Your task to perform on an android device: open app "Adobe Express: Graphic Design" (install if not already installed) and enter user name: "deliveries@gmail.com" and password: "regimentation" Image 0: 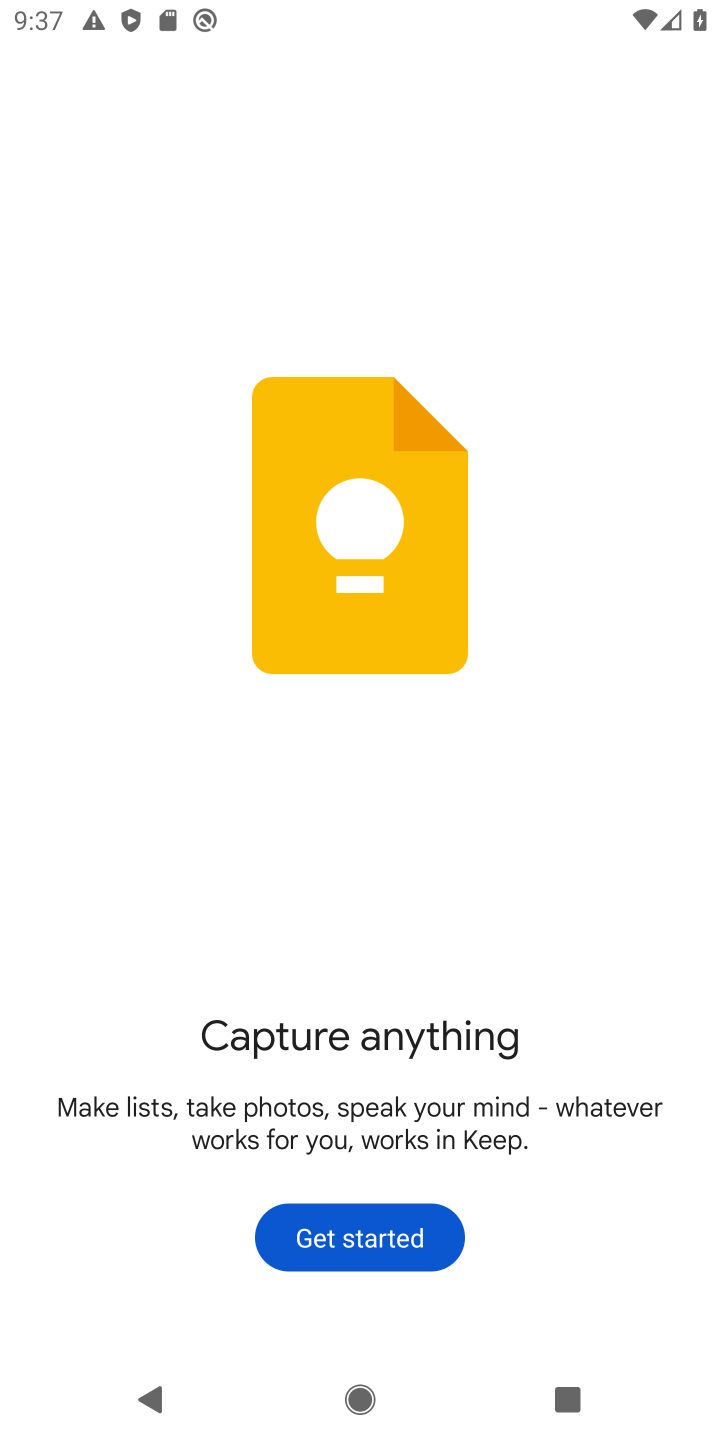
Step 0: press home button
Your task to perform on an android device: open app "Adobe Express: Graphic Design" (install if not already installed) and enter user name: "deliveries@gmail.com" and password: "regimentation" Image 1: 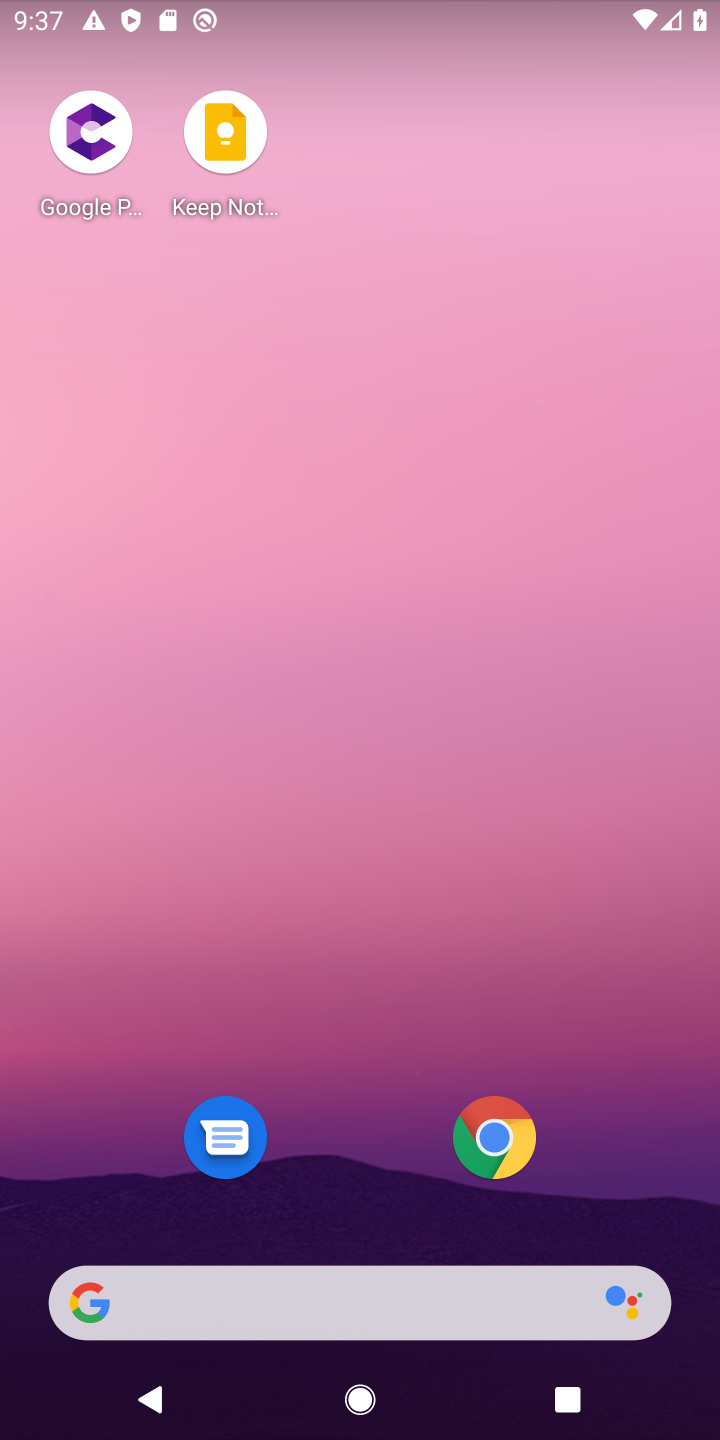
Step 1: drag from (315, 1213) to (394, 123)
Your task to perform on an android device: open app "Adobe Express: Graphic Design" (install if not already installed) and enter user name: "deliveries@gmail.com" and password: "regimentation" Image 2: 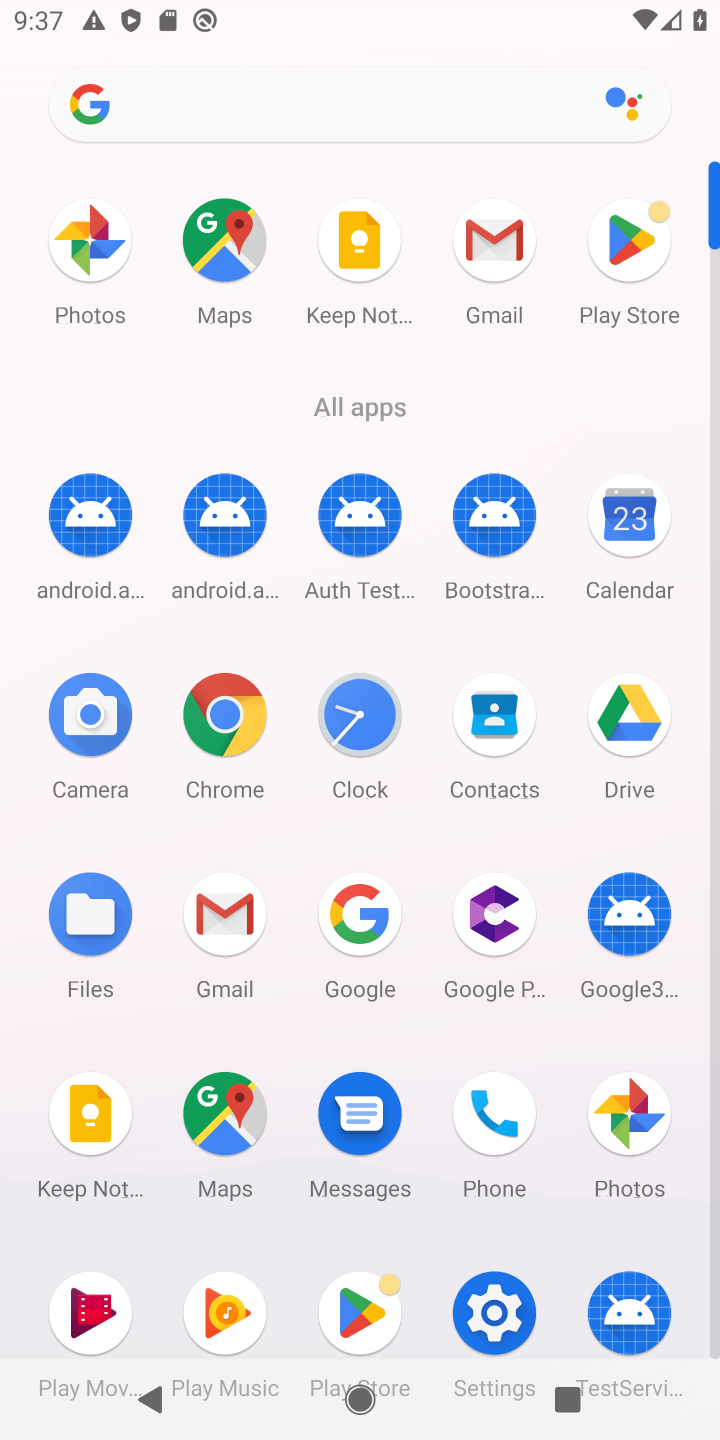
Step 2: click (361, 1290)
Your task to perform on an android device: open app "Adobe Express: Graphic Design" (install if not already installed) and enter user name: "deliveries@gmail.com" and password: "regimentation" Image 3: 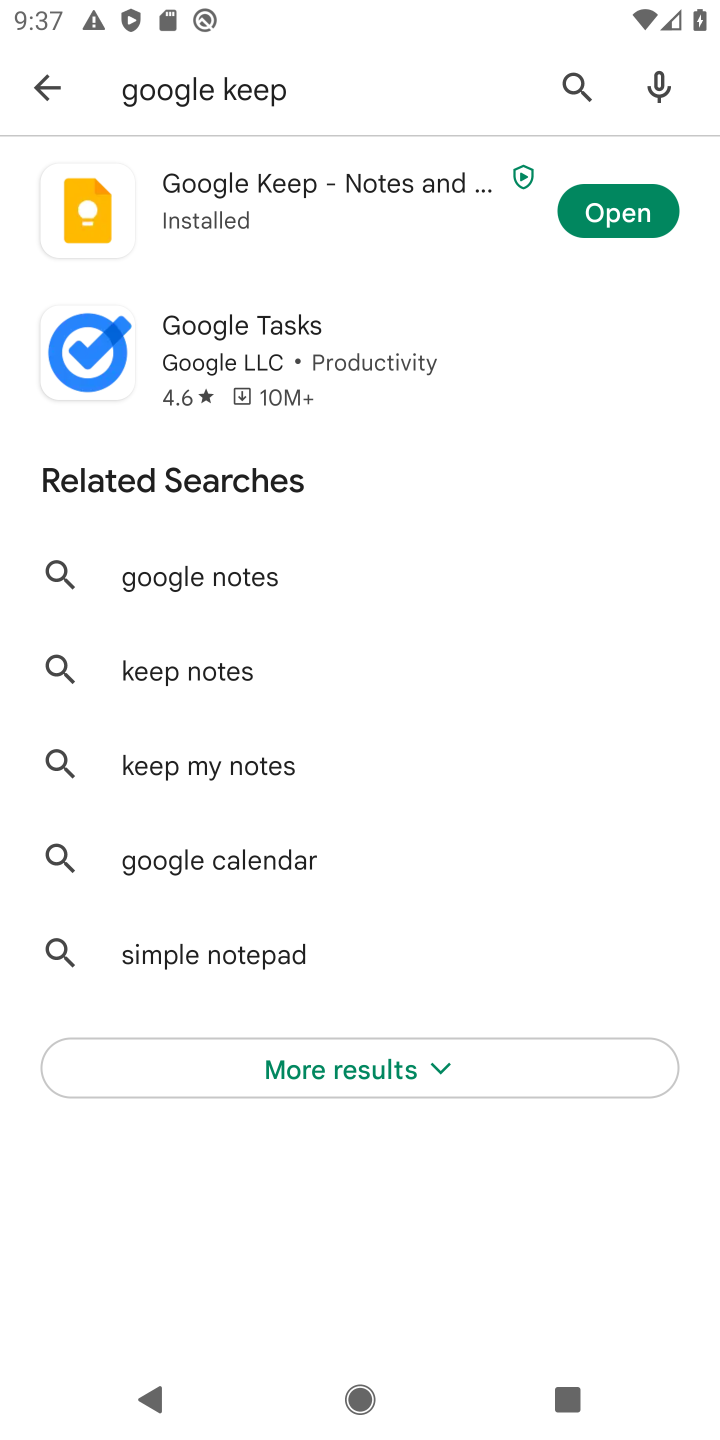
Step 3: click (39, 94)
Your task to perform on an android device: open app "Adobe Express: Graphic Design" (install if not already installed) and enter user name: "deliveries@gmail.com" and password: "regimentation" Image 4: 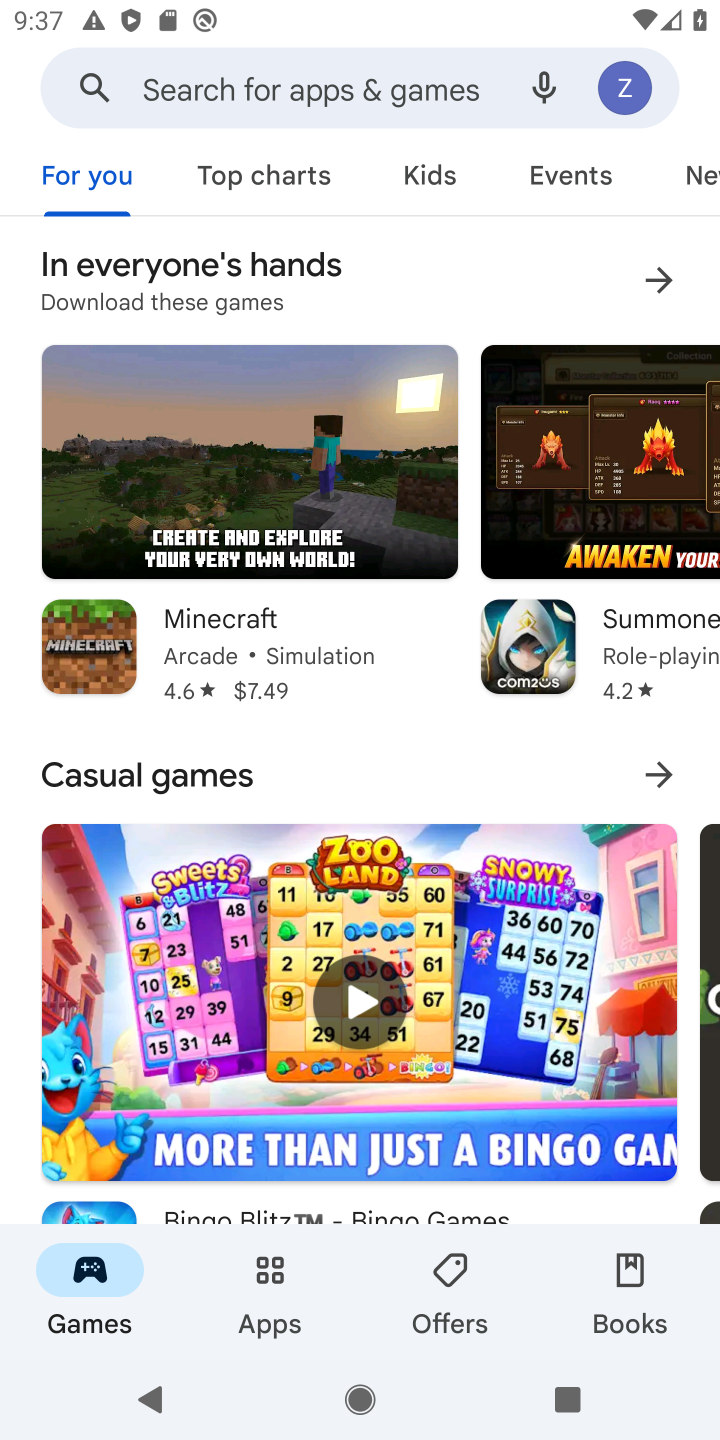
Step 4: click (170, 74)
Your task to perform on an android device: open app "Adobe Express: Graphic Design" (install if not already installed) and enter user name: "deliveries@gmail.com" and password: "regimentation" Image 5: 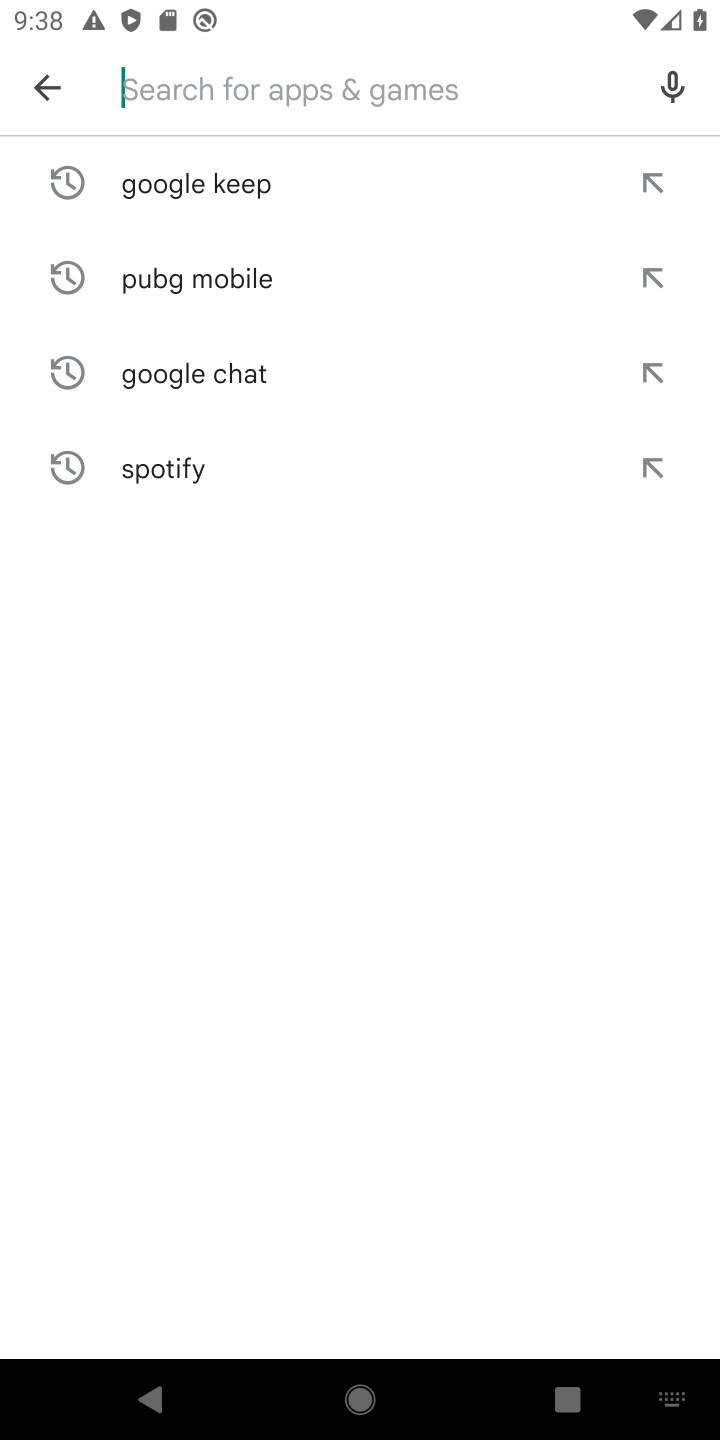
Step 5: type "Adobe Express: Graphic Design"
Your task to perform on an android device: open app "Adobe Express: Graphic Design" (install if not already installed) and enter user name: "deliveries@gmail.com" and password: "regimentation" Image 6: 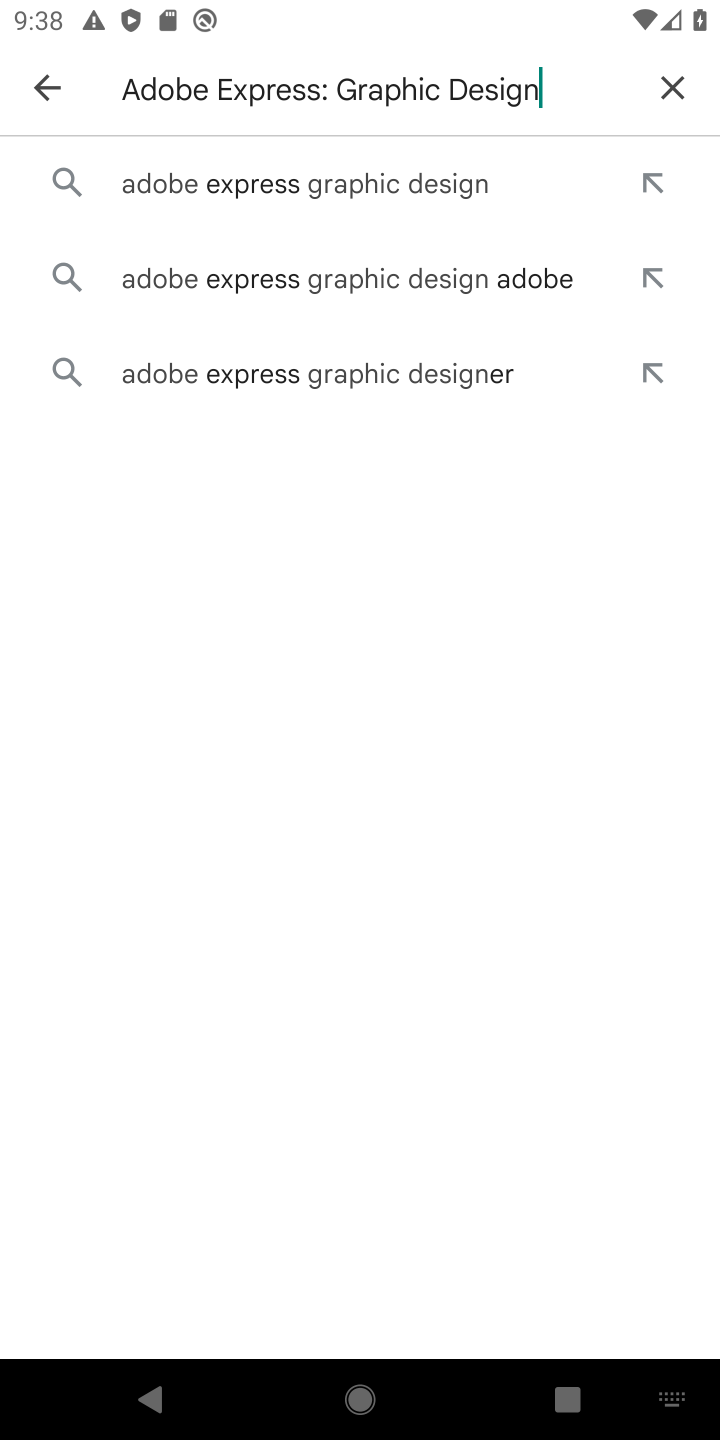
Step 6: click (217, 197)
Your task to perform on an android device: open app "Adobe Express: Graphic Design" (install if not already installed) and enter user name: "deliveries@gmail.com" and password: "regimentation" Image 7: 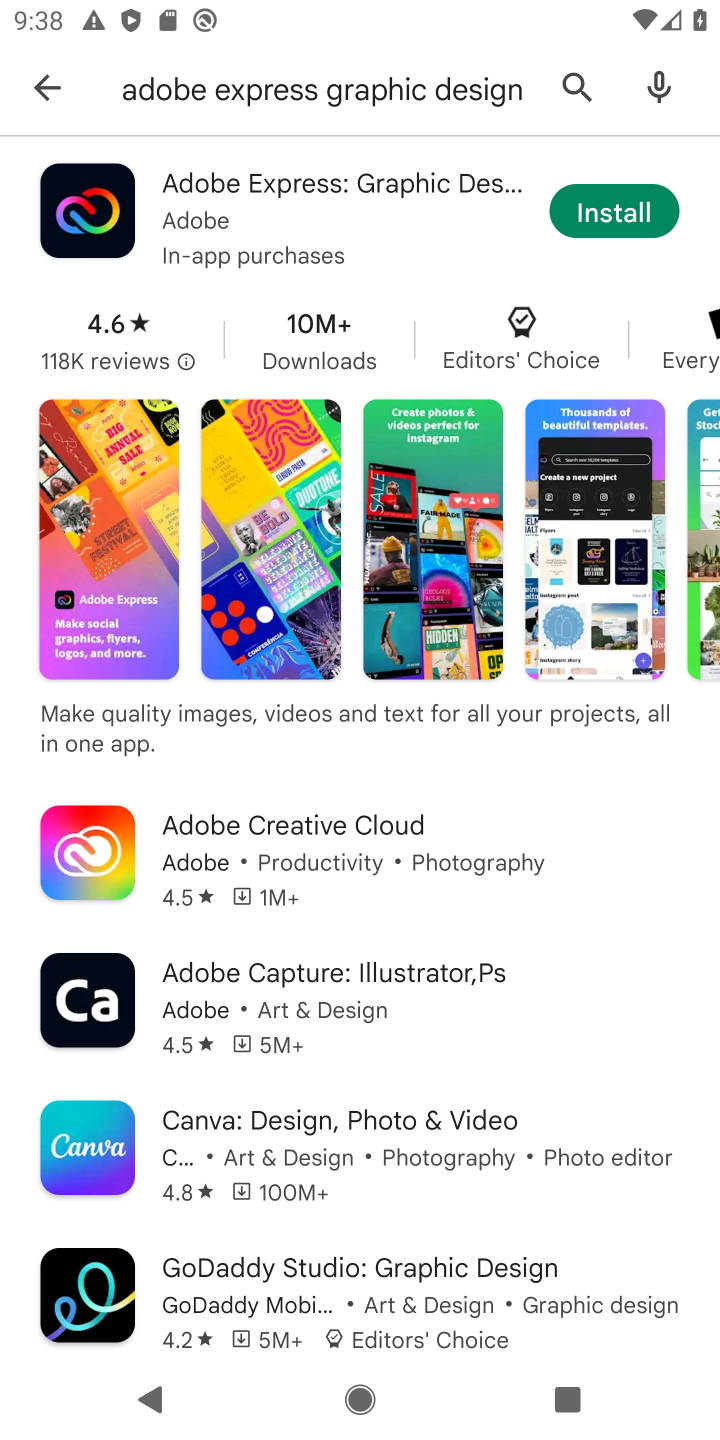
Step 7: click (578, 227)
Your task to perform on an android device: open app "Adobe Express: Graphic Design" (install if not already installed) and enter user name: "deliveries@gmail.com" and password: "regimentation" Image 8: 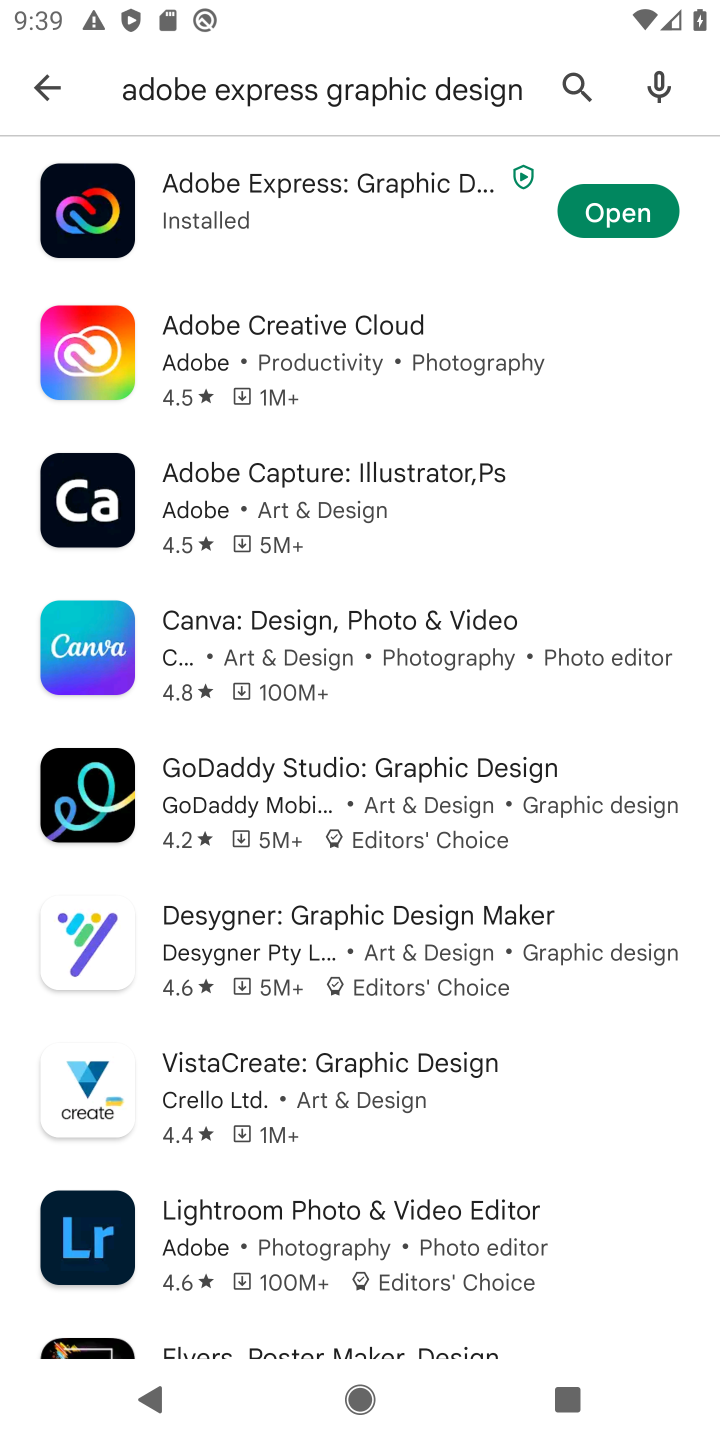
Step 8: click (636, 218)
Your task to perform on an android device: open app "Adobe Express: Graphic Design" (install if not already installed) and enter user name: "deliveries@gmail.com" and password: "regimentation" Image 9: 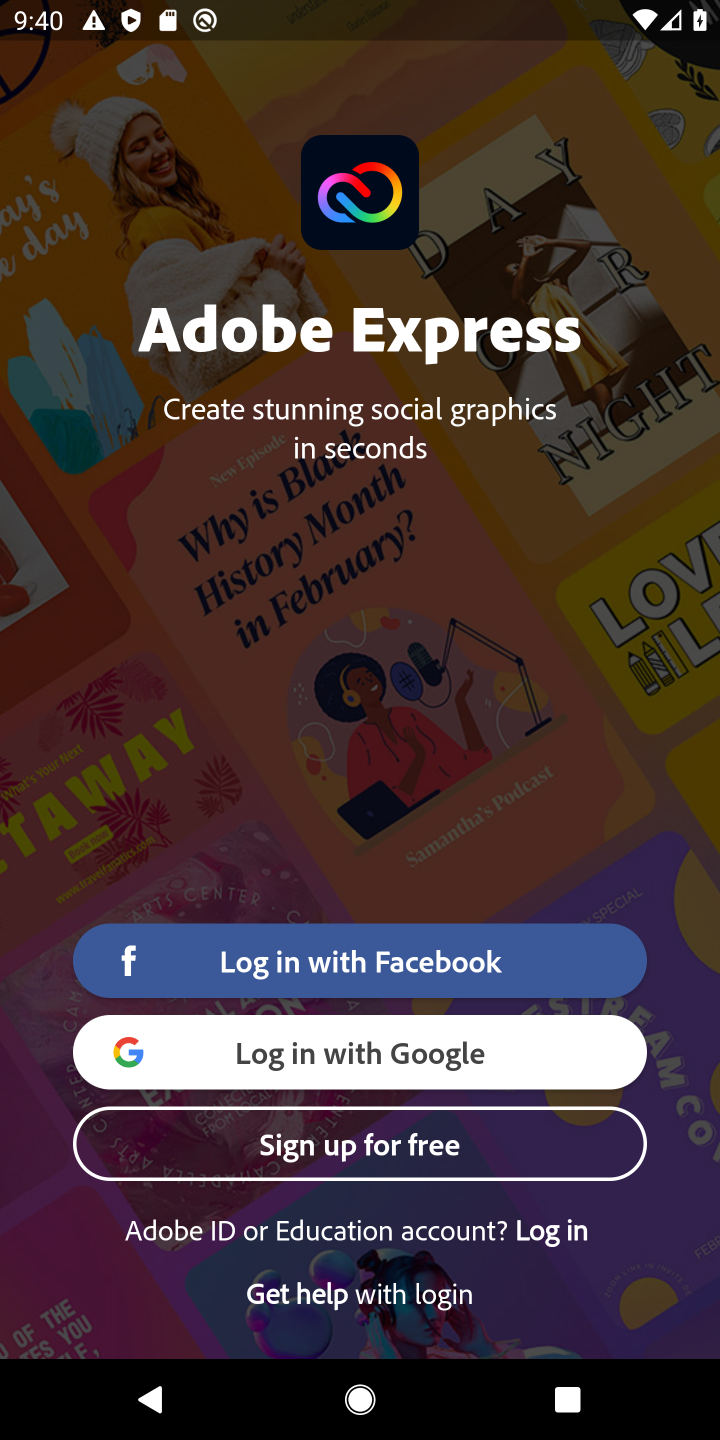
Step 9: click (441, 1301)
Your task to perform on an android device: open app "Adobe Express: Graphic Design" (install if not already installed) and enter user name: "deliveries@gmail.com" and password: "regimentation" Image 10: 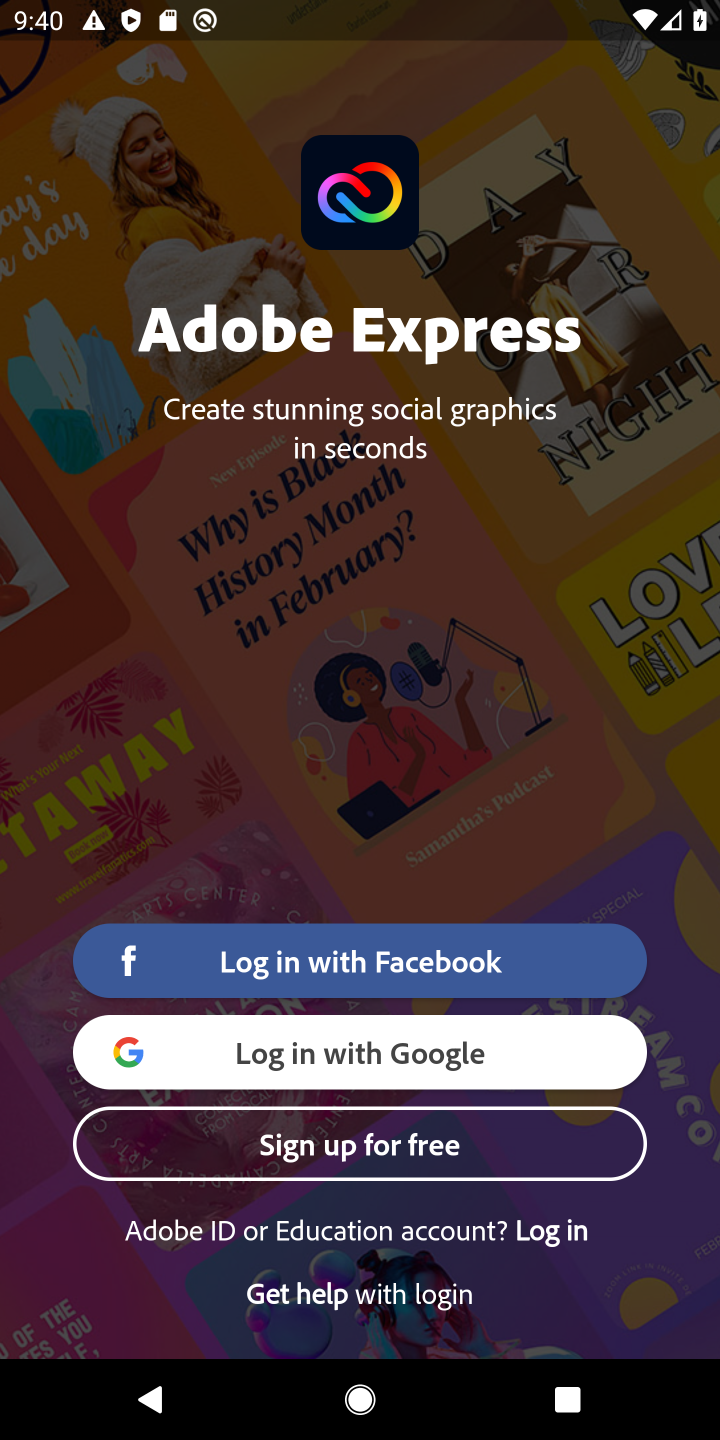
Step 10: click (574, 1229)
Your task to perform on an android device: open app "Adobe Express: Graphic Design" (install if not already installed) and enter user name: "deliveries@gmail.com" and password: "regimentation" Image 11: 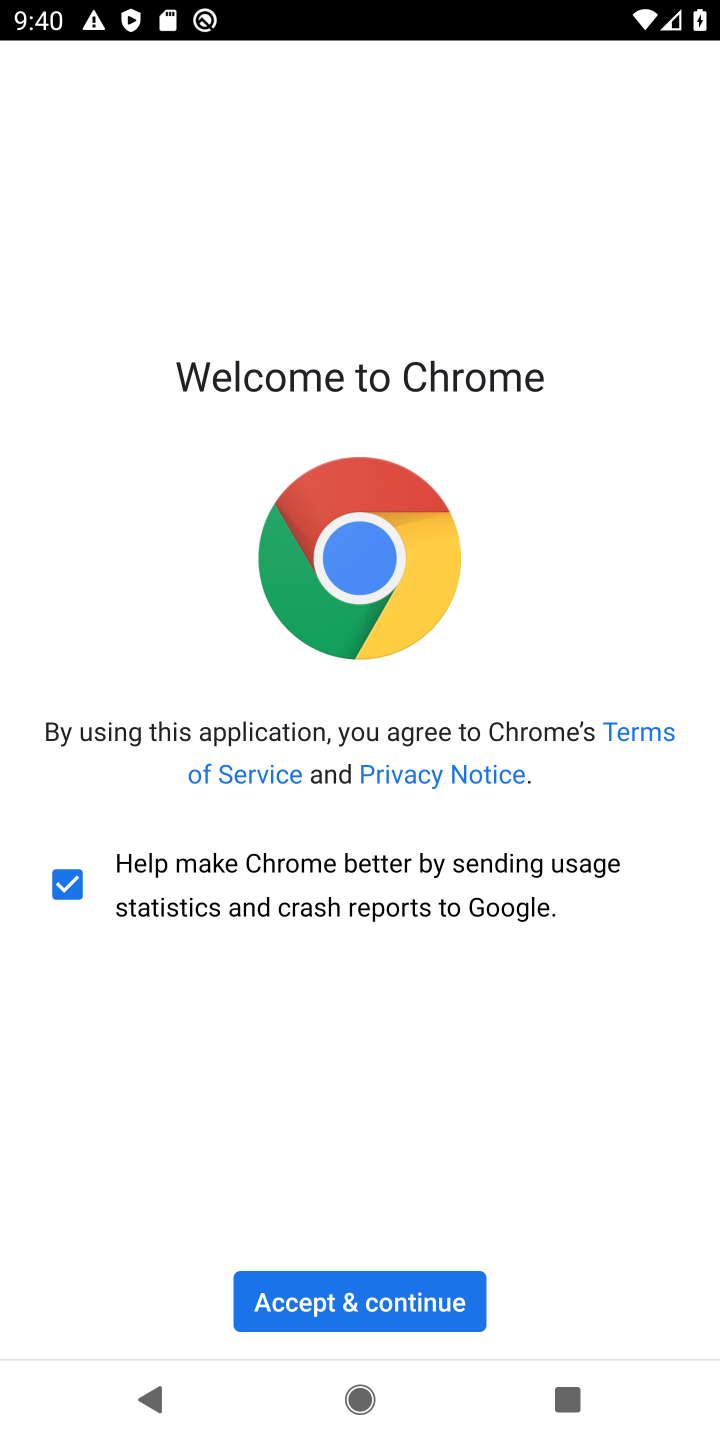
Step 11: press back button
Your task to perform on an android device: open app "Adobe Express: Graphic Design" (install if not already installed) and enter user name: "deliveries@gmail.com" and password: "regimentation" Image 12: 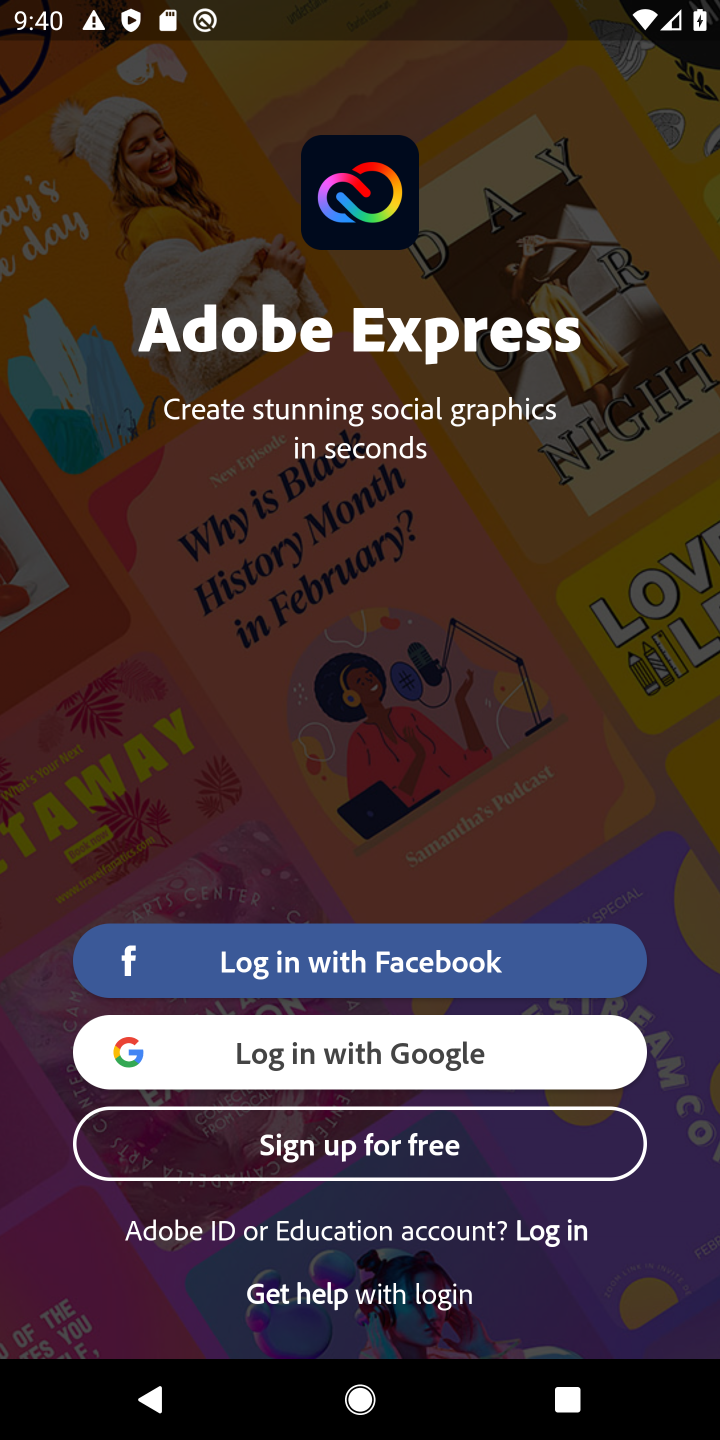
Step 12: click (547, 1225)
Your task to perform on an android device: open app "Adobe Express: Graphic Design" (install if not already installed) and enter user name: "deliveries@gmail.com" and password: "regimentation" Image 13: 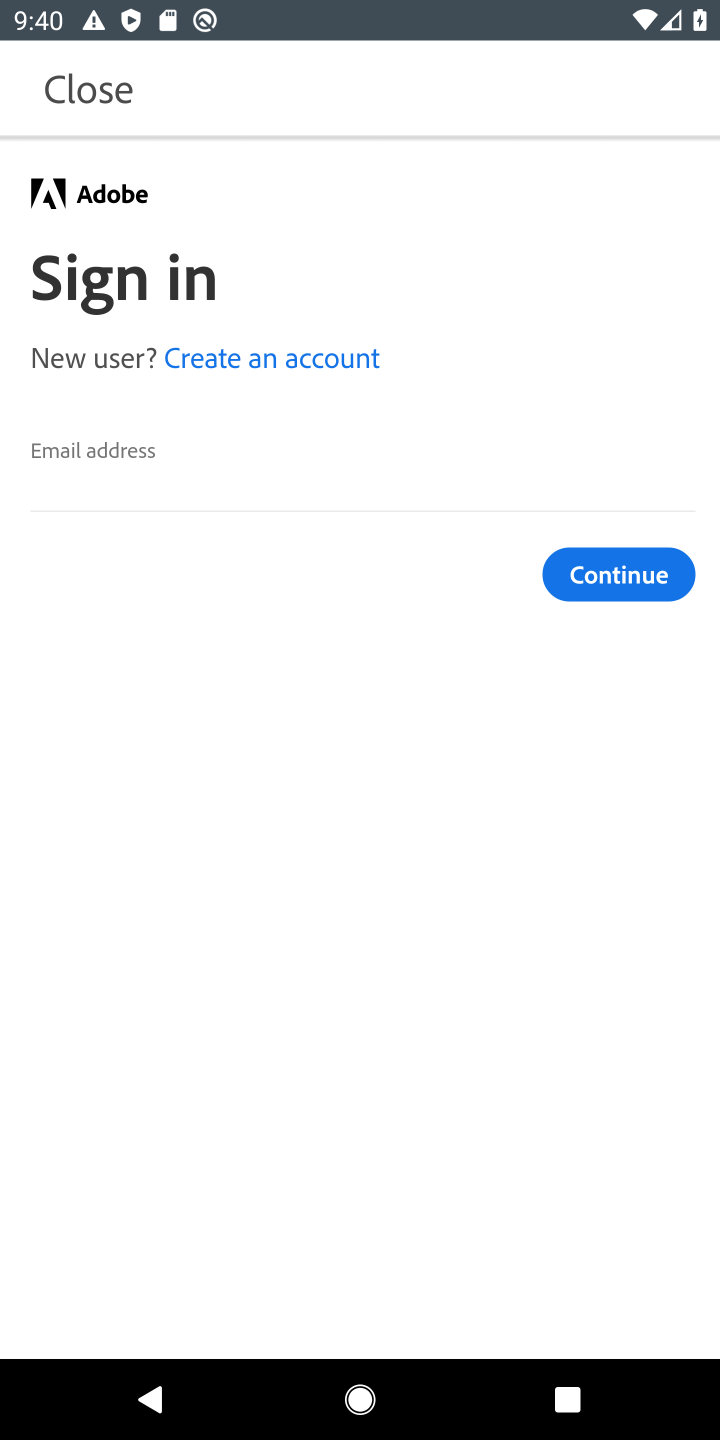
Step 13: click (116, 459)
Your task to perform on an android device: open app "Adobe Express: Graphic Design" (install if not already installed) and enter user name: "deliveries@gmail.com" and password: "regimentation" Image 14: 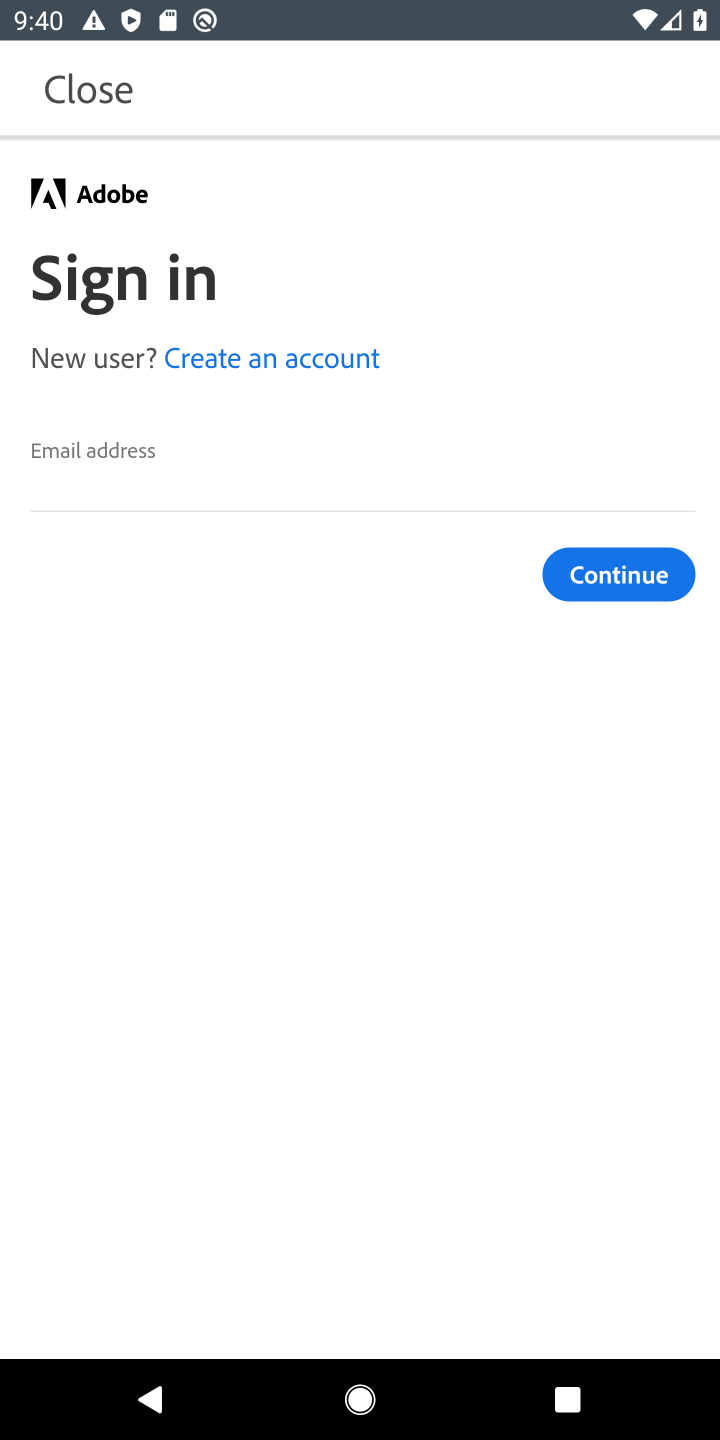
Step 14: task complete